Your task to perform on an android device: Open calendar and show me the second week of next month Image 0: 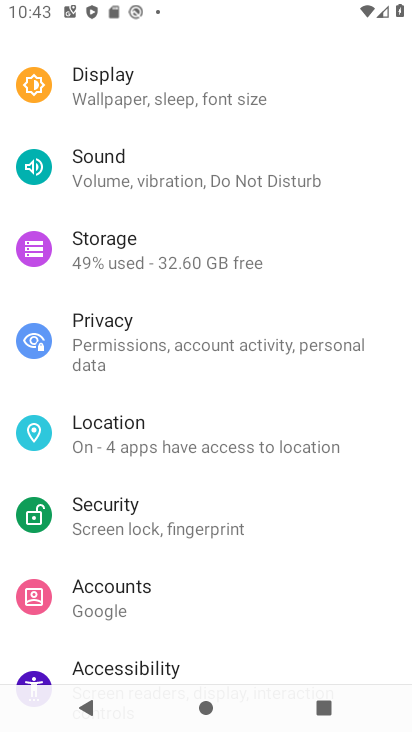
Step 0: press home button
Your task to perform on an android device: Open calendar and show me the second week of next month Image 1: 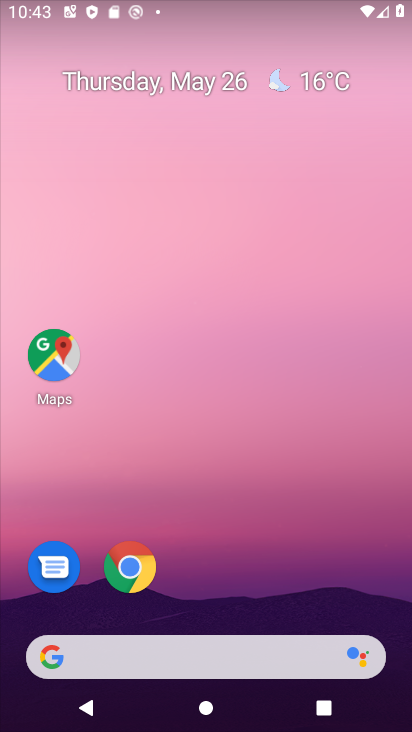
Step 1: drag from (210, 611) to (210, 20)
Your task to perform on an android device: Open calendar and show me the second week of next month Image 2: 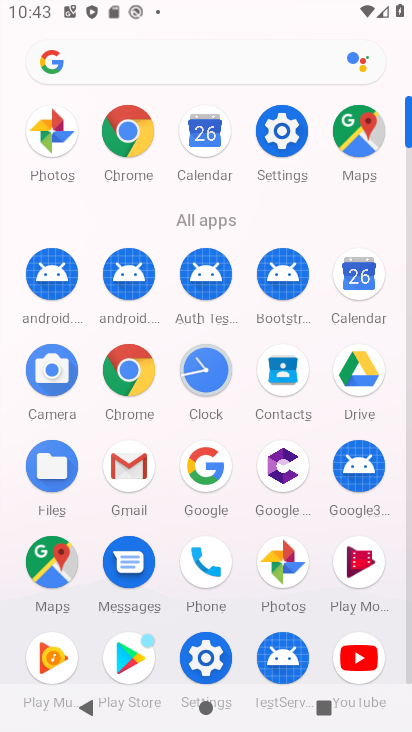
Step 2: click (357, 270)
Your task to perform on an android device: Open calendar and show me the second week of next month Image 3: 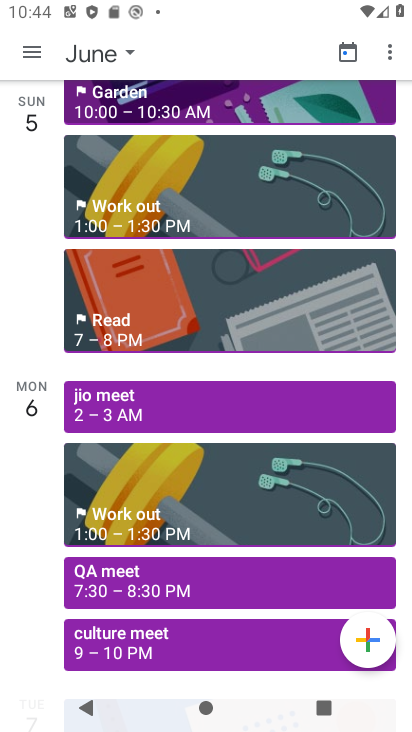
Step 3: click (127, 51)
Your task to perform on an android device: Open calendar and show me the second week of next month Image 4: 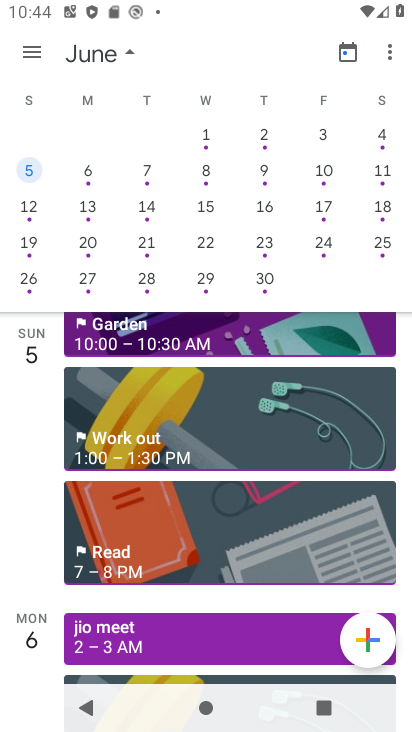
Step 4: click (26, 170)
Your task to perform on an android device: Open calendar and show me the second week of next month Image 5: 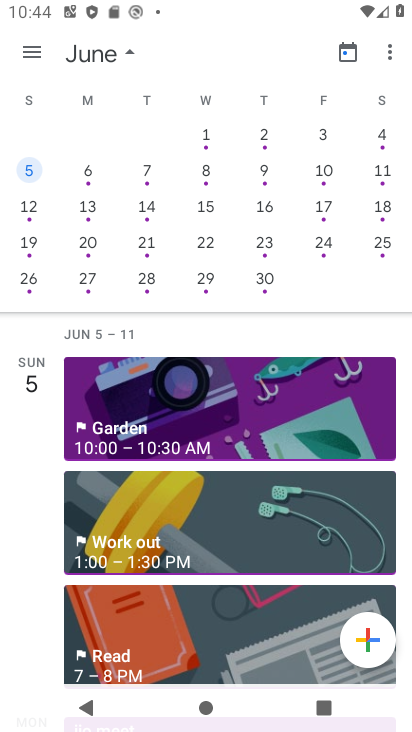
Step 5: click (135, 55)
Your task to perform on an android device: Open calendar and show me the second week of next month Image 6: 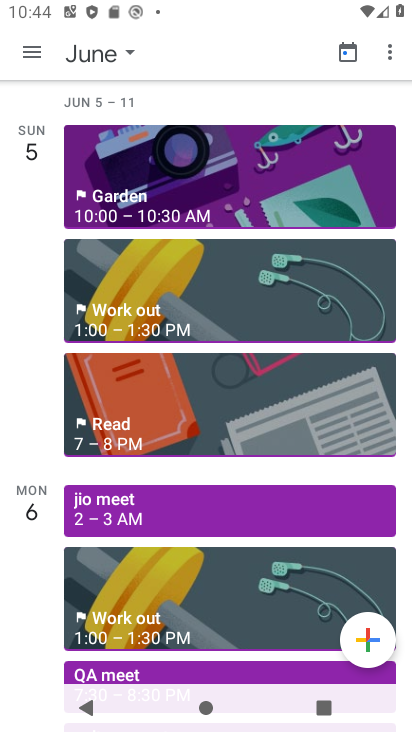
Step 6: task complete